Your task to perform on an android device: change keyboard looks Image 0: 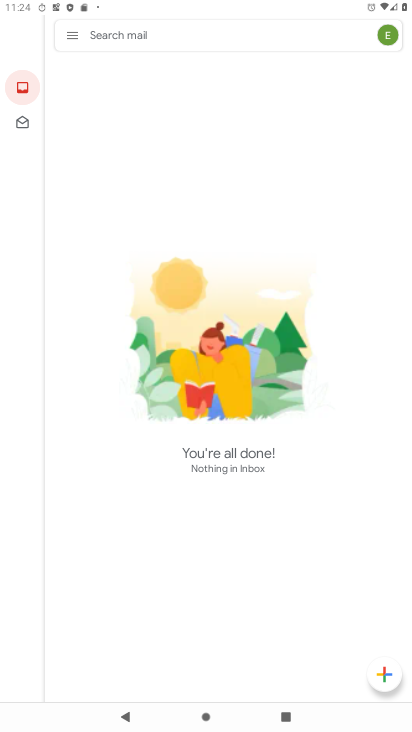
Step 0: press home button
Your task to perform on an android device: change keyboard looks Image 1: 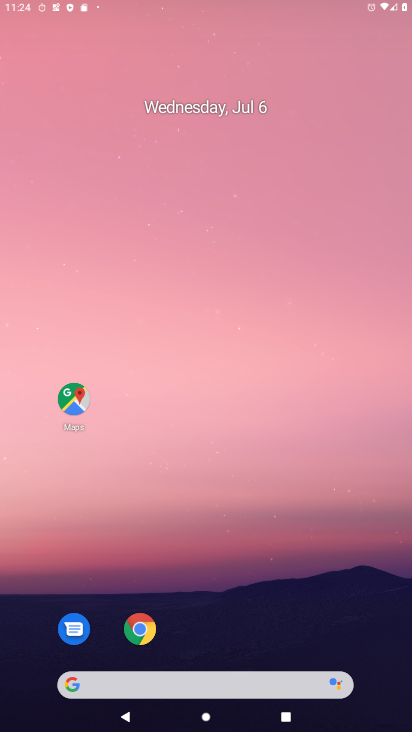
Step 1: drag from (198, 628) to (222, 74)
Your task to perform on an android device: change keyboard looks Image 2: 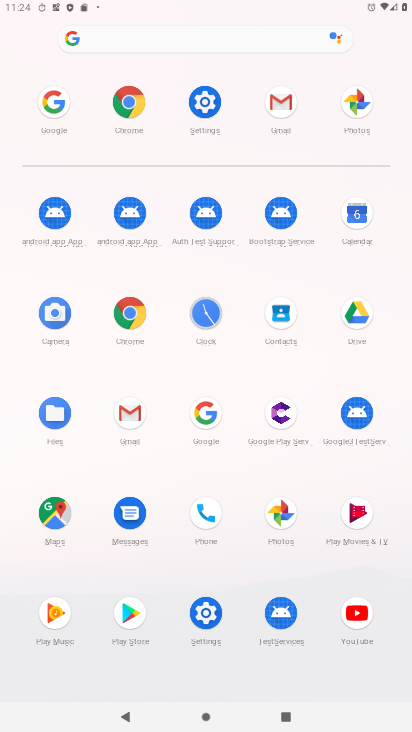
Step 2: click (202, 105)
Your task to perform on an android device: change keyboard looks Image 3: 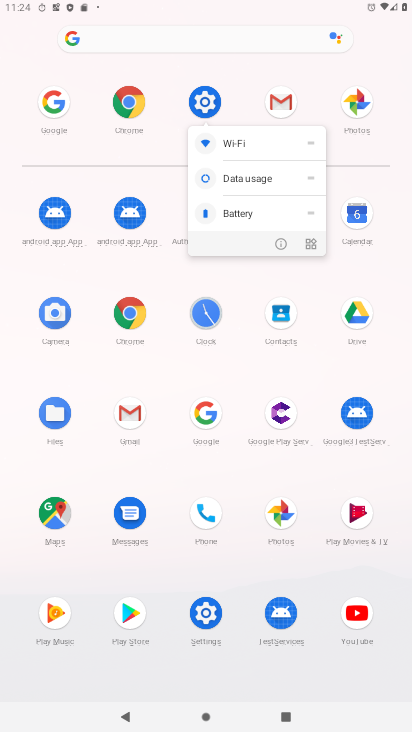
Step 3: click (208, 108)
Your task to perform on an android device: change keyboard looks Image 4: 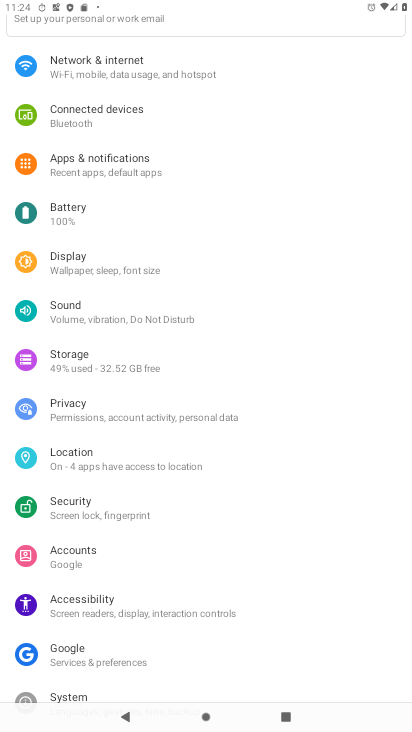
Step 4: drag from (158, 646) to (150, 414)
Your task to perform on an android device: change keyboard looks Image 5: 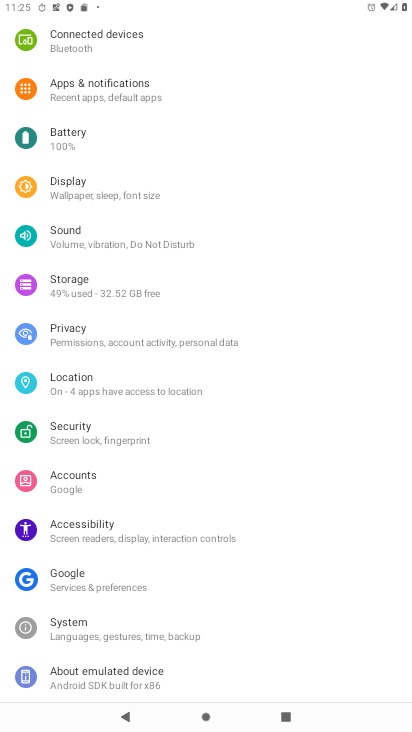
Step 5: click (130, 638)
Your task to perform on an android device: change keyboard looks Image 6: 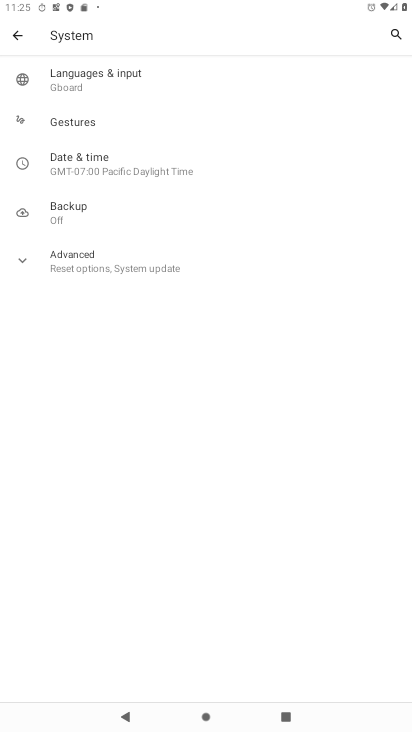
Step 6: click (106, 77)
Your task to perform on an android device: change keyboard looks Image 7: 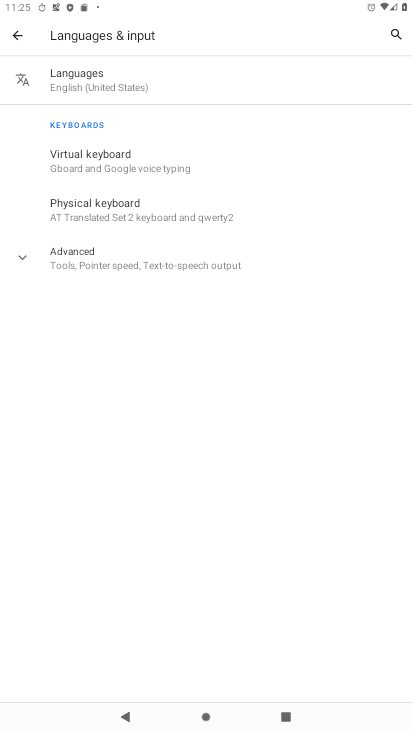
Step 7: drag from (75, 77) to (197, 437)
Your task to perform on an android device: change keyboard looks Image 8: 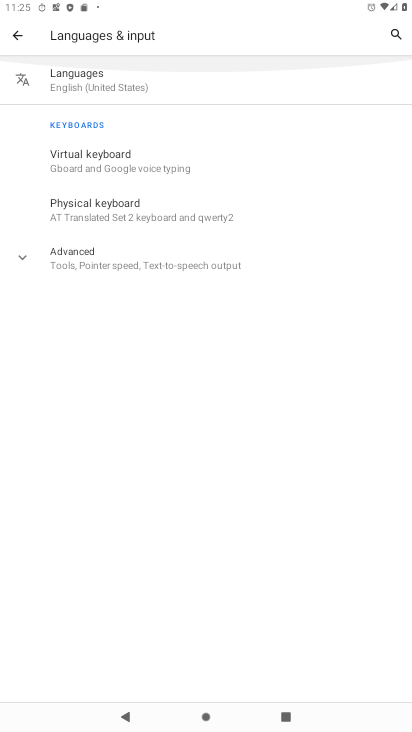
Step 8: click (112, 161)
Your task to perform on an android device: change keyboard looks Image 9: 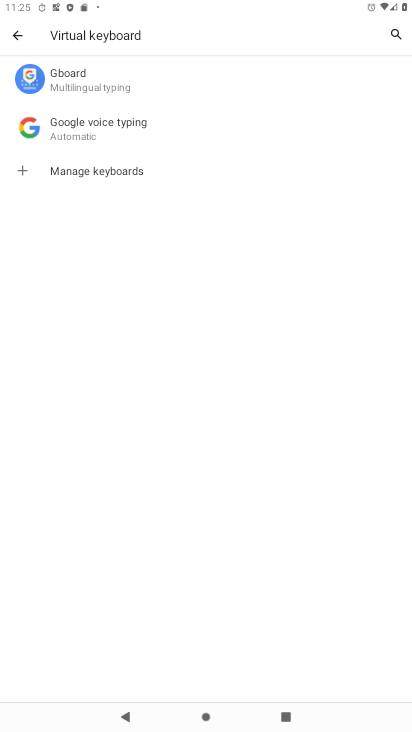
Step 9: click (97, 83)
Your task to perform on an android device: change keyboard looks Image 10: 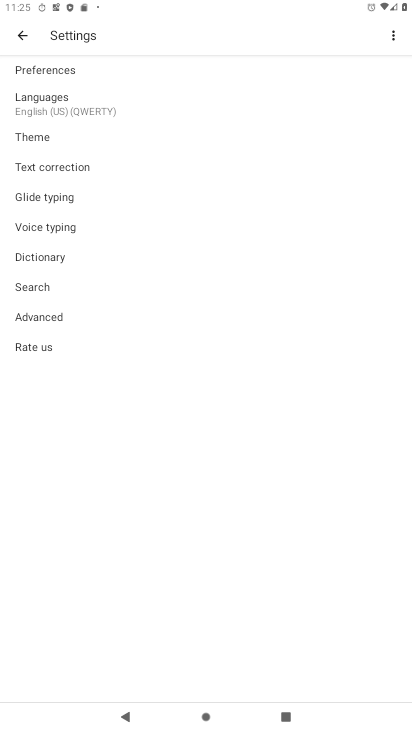
Step 10: click (19, 146)
Your task to perform on an android device: change keyboard looks Image 11: 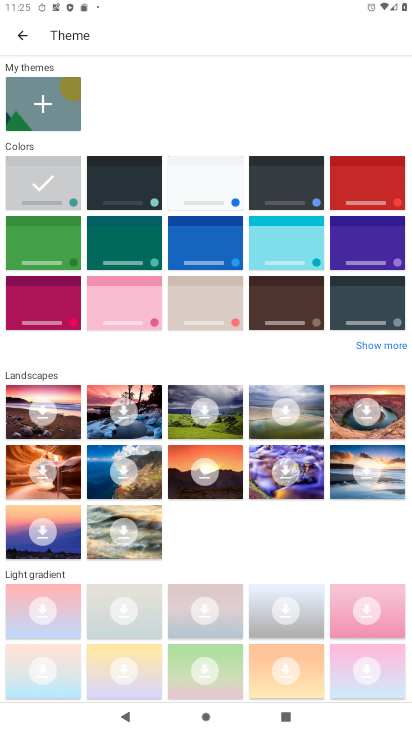
Step 11: click (118, 194)
Your task to perform on an android device: change keyboard looks Image 12: 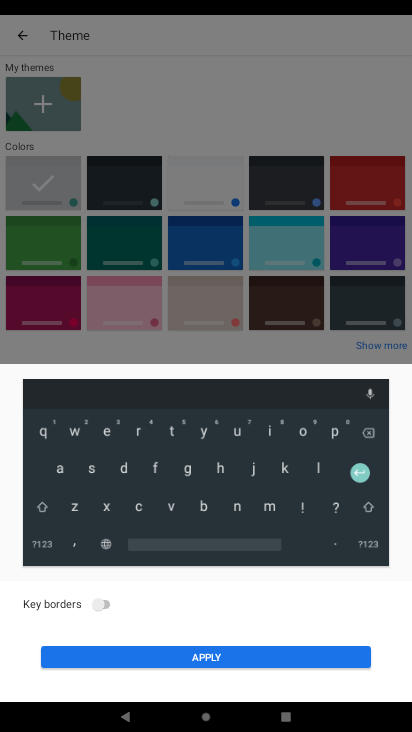
Step 12: click (210, 660)
Your task to perform on an android device: change keyboard looks Image 13: 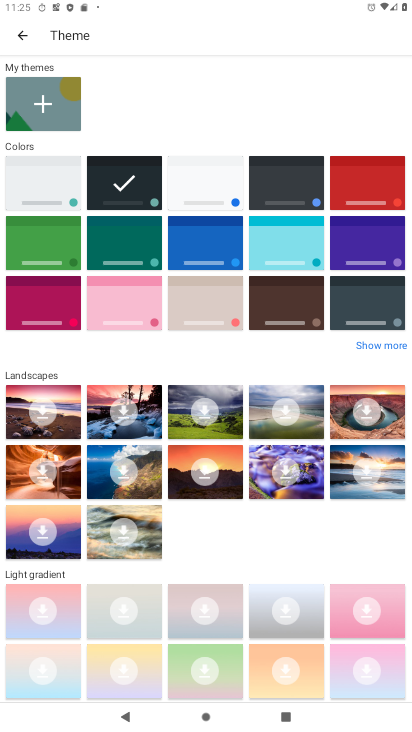
Step 13: task complete